Your task to perform on an android device: Turn off the flashlight Image 0: 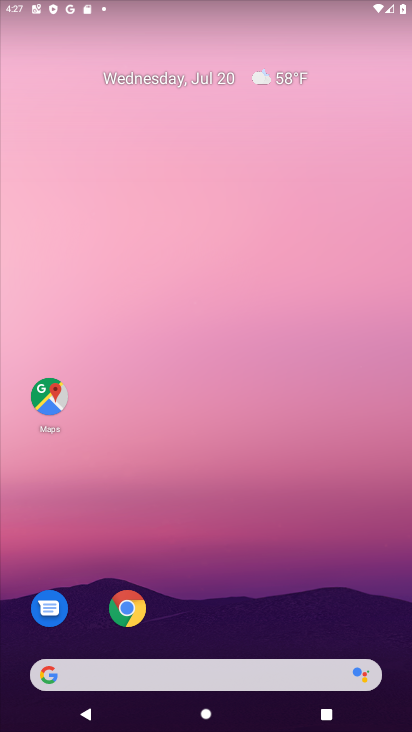
Step 0: drag from (225, 649) to (233, 26)
Your task to perform on an android device: Turn off the flashlight Image 1: 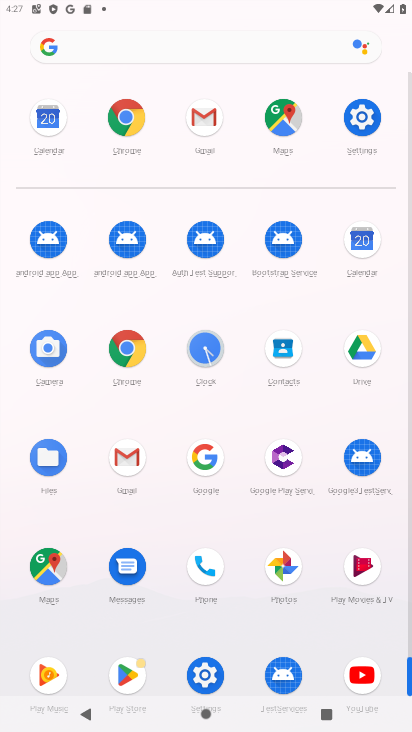
Step 1: click (202, 663)
Your task to perform on an android device: Turn off the flashlight Image 2: 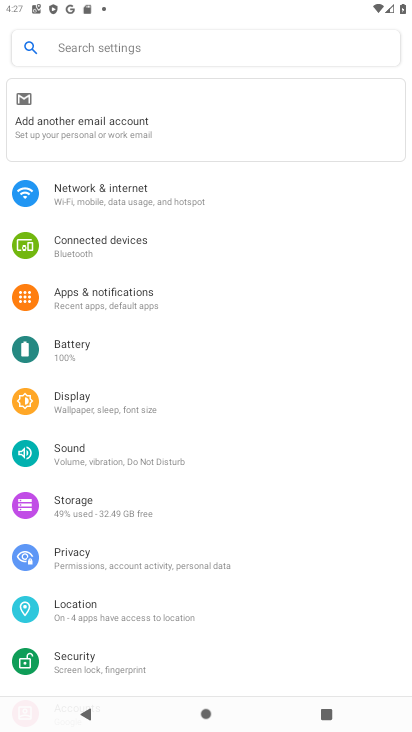
Step 2: click (177, 50)
Your task to perform on an android device: Turn off the flashlight Image 3: 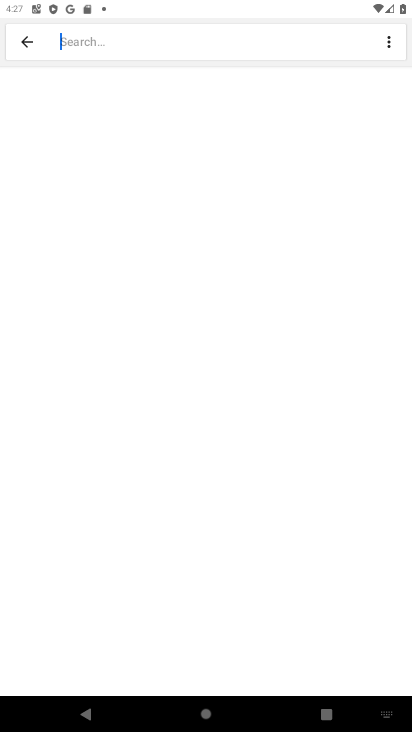
Step 3: type "flashlight"
Your task to perform on an android device: Turn off the flashlight Image 4: 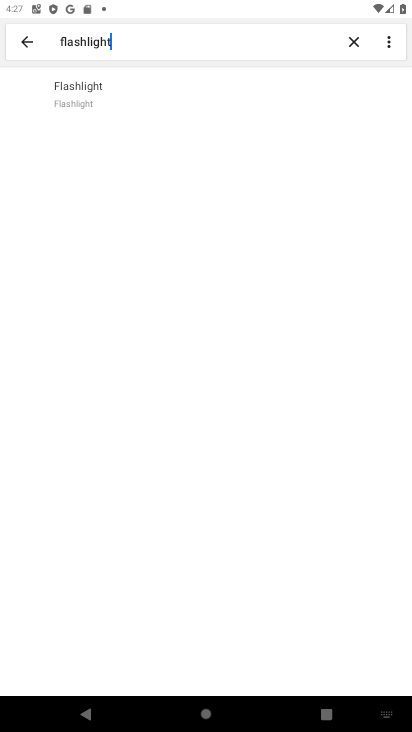
Step 4: click (86, 104)
Your task to perform on an android device: Turn off the flashlight Image 5: 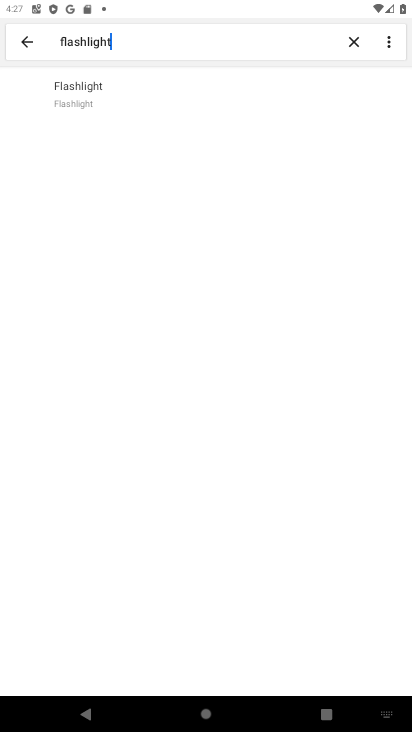
Step 5: click (90, 97)
Your task to perform on an android device: Turn off the flashlight Image 6: 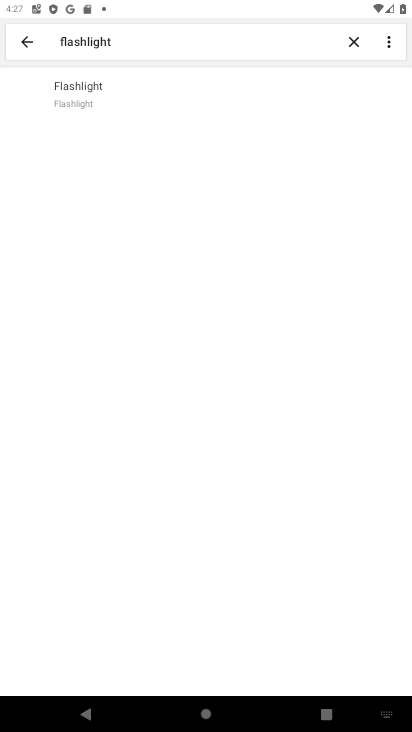
Step 6: click (123, 90)
Your task to perform on an android device: Turn off the flashlight Image 7: 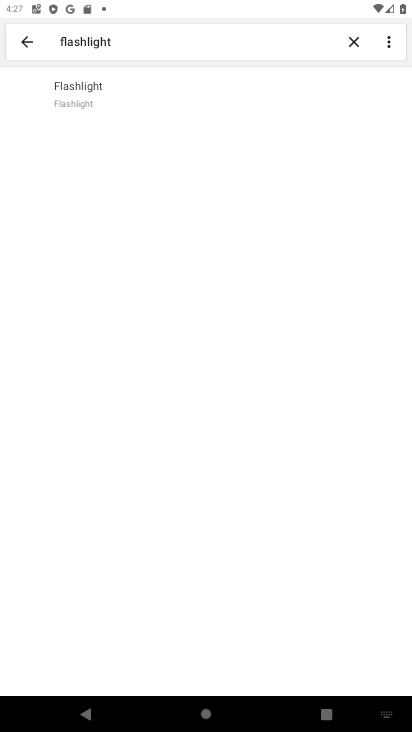
Step 7: task complete